Your task to perform on an android device: change notification settings in the gmail app Image 0: 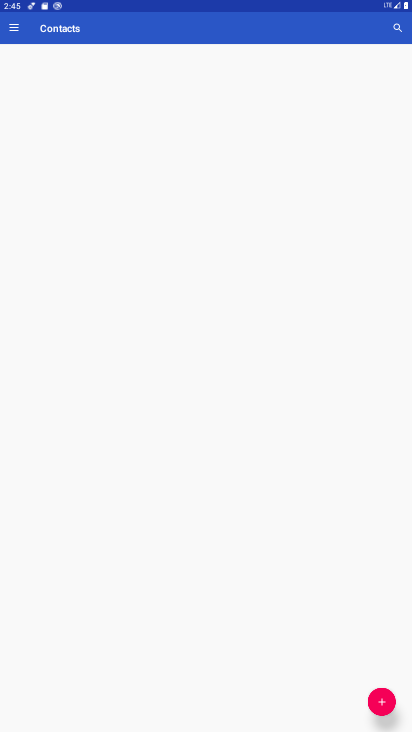
Step 0: click (170, 27)
Your task to perform on an android device: change notification settings in the gmail app Image 1: 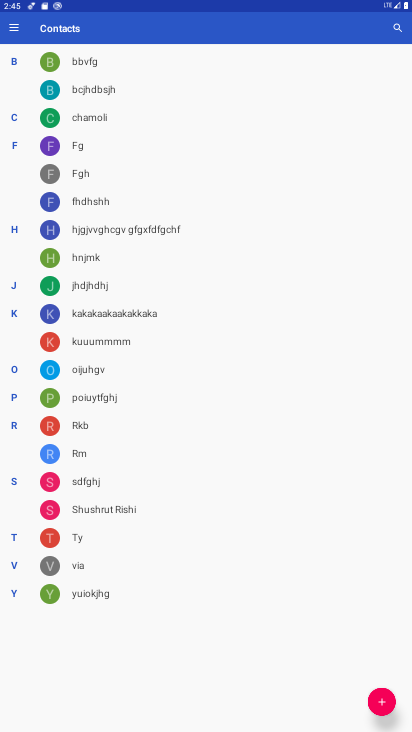
Step 1: press home button
Your task to perform on an android device: change notification settings in the gmail app Image 2: 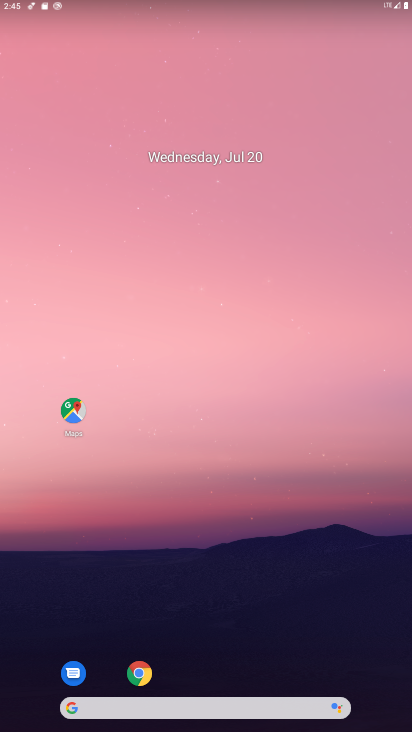
Step 2: drag from (219, 612) to (207, 35)
Your task to perform on an android device: change notification settings in the gmail app Image 3: 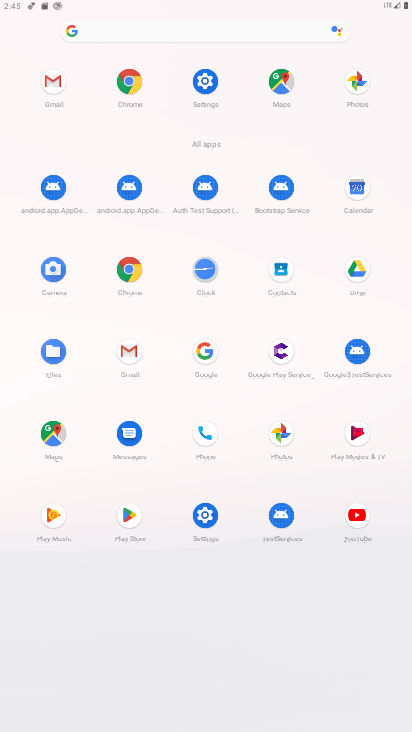
Step 3: click (129, 350)
Your task to perform on an android device: change notification settings in the gmail app Image 4: 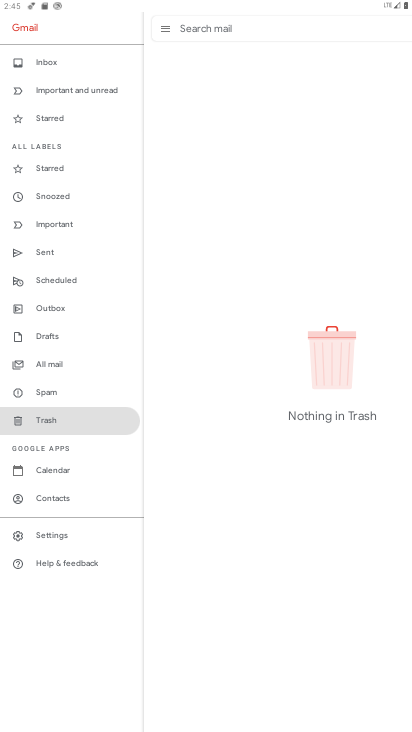
Step 4: click (45, 537)
Your task to perform on an android device: change notification settings in the gmail app Image 5: 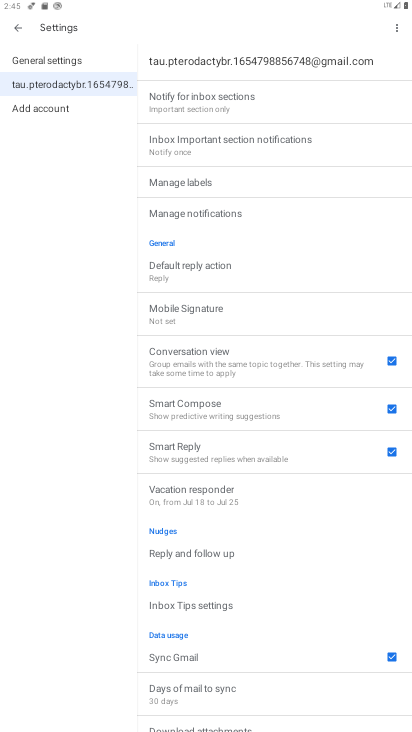
Step 5: click (73, 62)
Your task to perform on an android device: change notification settings in the gmail app Image 6: 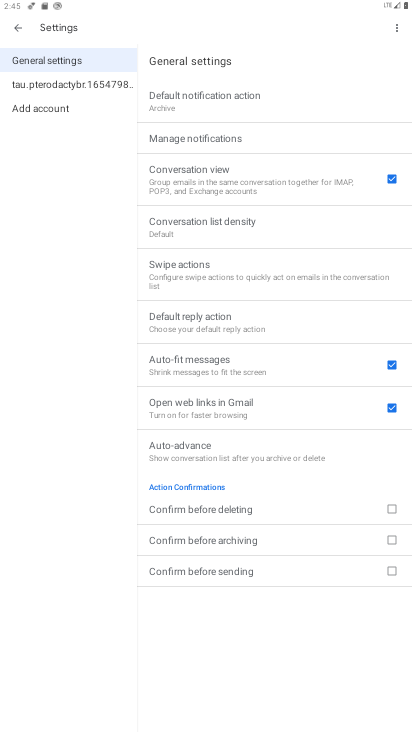
Step 6: click (210, 137)
Your task to perform on an android device: change notification settings in the gmail app Image 7: 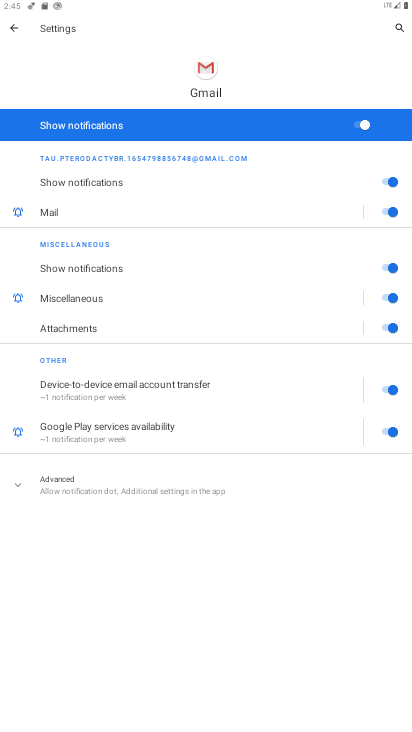
Step 7: click (344, 120)
Your task to perform on an android device: change notification settings in the gmail app Image 8: 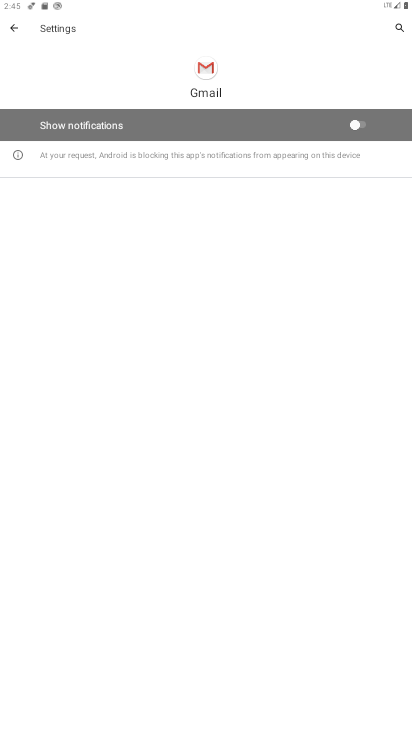
Step 8: task complete